Your task to perform on an android device: refresh tabs in the chrome app Image 0: 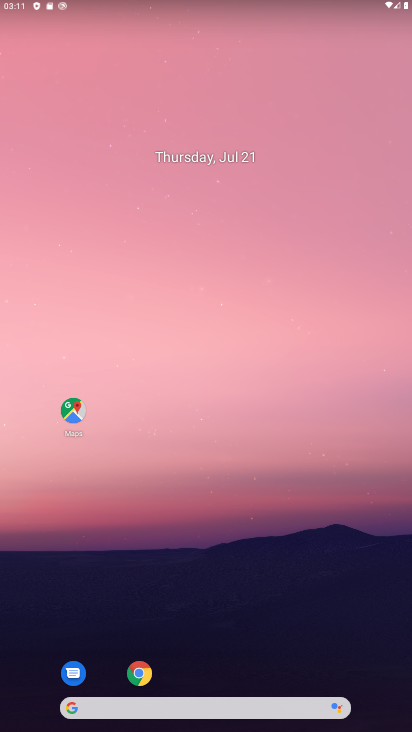
Step 0: drag from (263, 649) to (236, 67)
Your task to perform on an android device: refresh tabs in the chrome app Image 1: 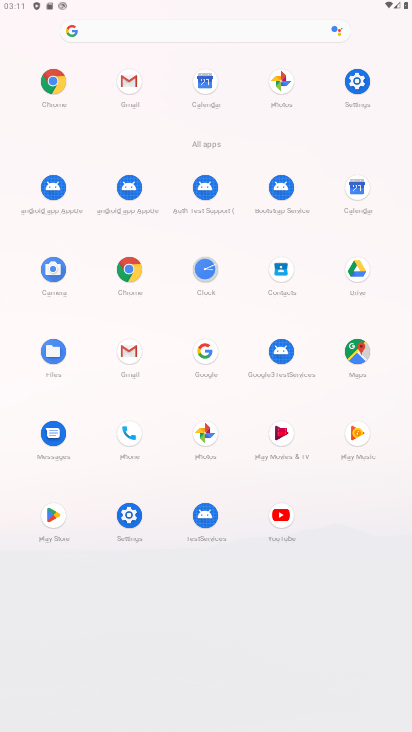
Step 1: click (136, 262)
Your task to perform on an android device: refresh tabs in the chrome app Image 2: 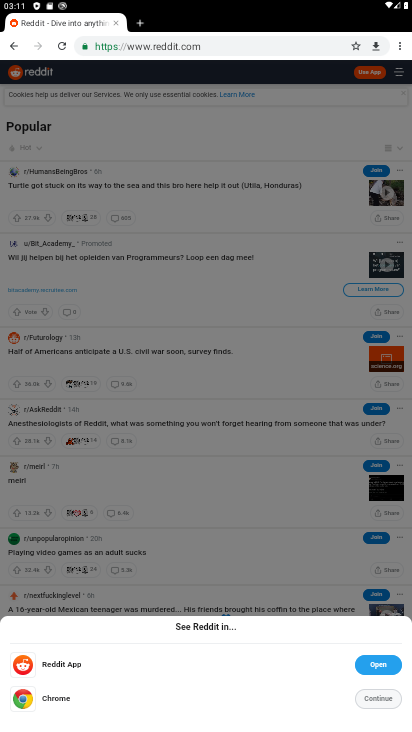
Step 2: drag from (407, 41) to (63, 46)
Your task to perform on an android device: refresh tabs in the chrome app Image 3: 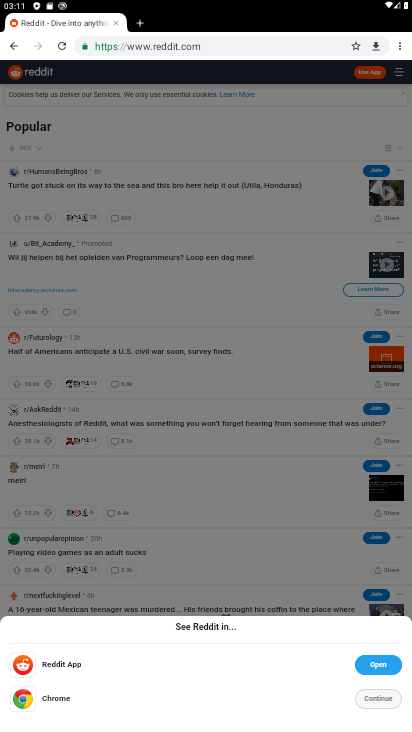
Step 3: click (59, 45)
Your task to perform on an android device: refresh tabs in the chrome app Image 4: 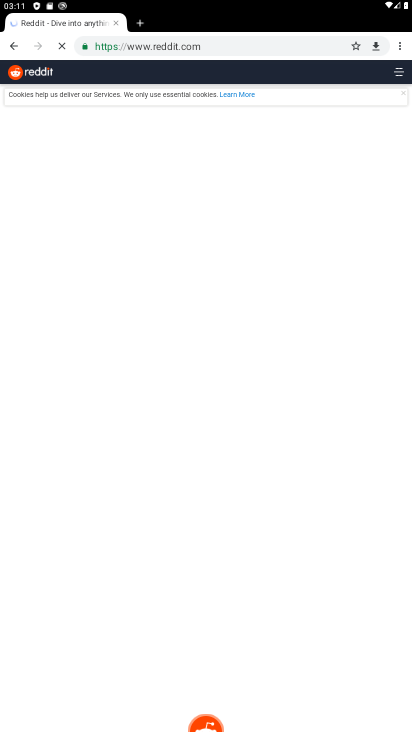
Step 4: task complete